Your task to perform on an android device: Turn off the flashlight Image 0: 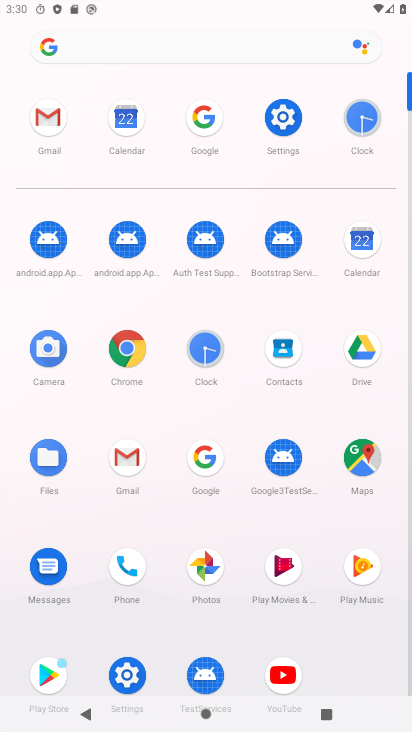
Step 0: click (275, 113)
Your task to perform on an android device: Turn off the flashlight Image 1: 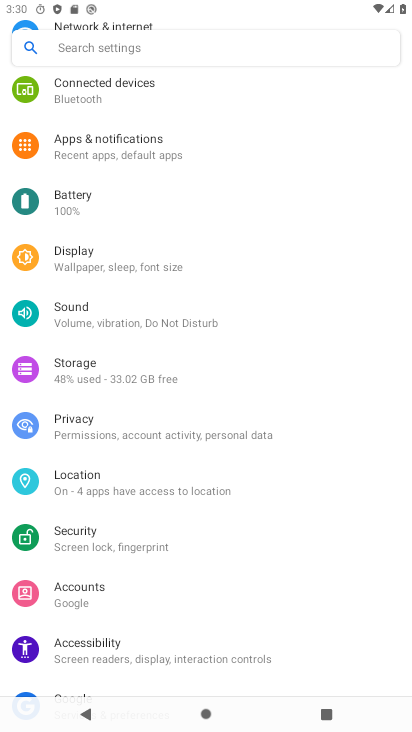
Step 1: click (142, 150)
Your task to perform on an android device: Turn off the flashlight Image 2: 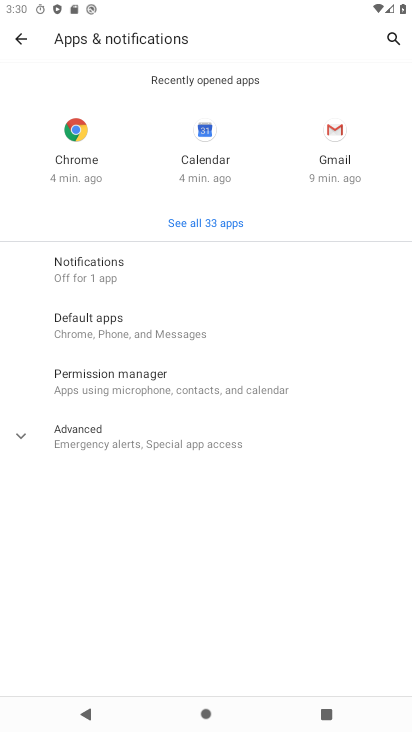
Step 2: click (225, 216)
Your task to perform on an android device: Turn off the flashlight Image 3: 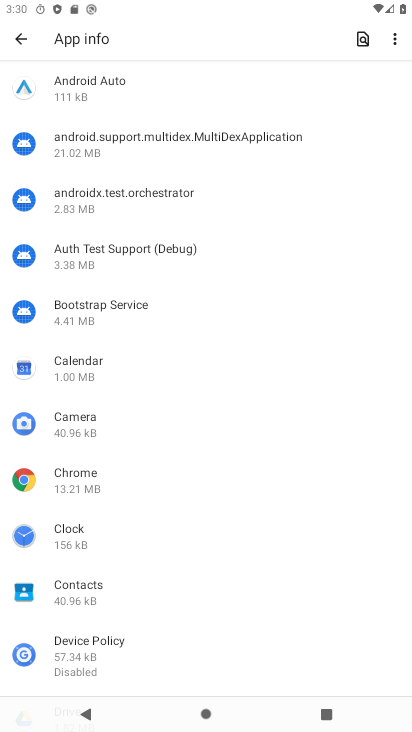
Step 3: task complete